Your task to perform on an android device: visit the assistant section in the google photos Image 0: 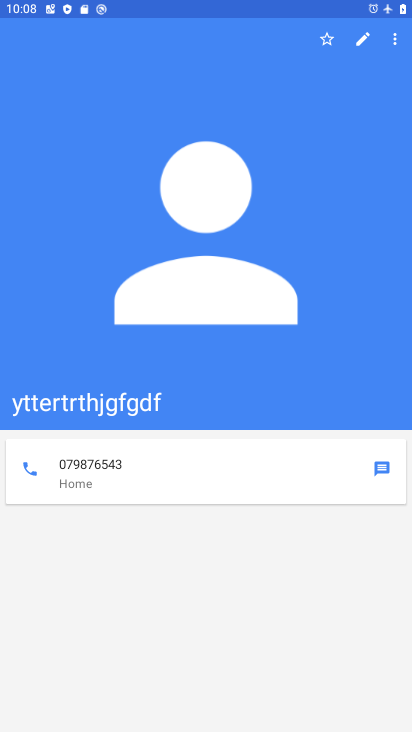
Step 0: press home button
Your task to perform on an android device: visit the assistant section in the google photos Image 1: 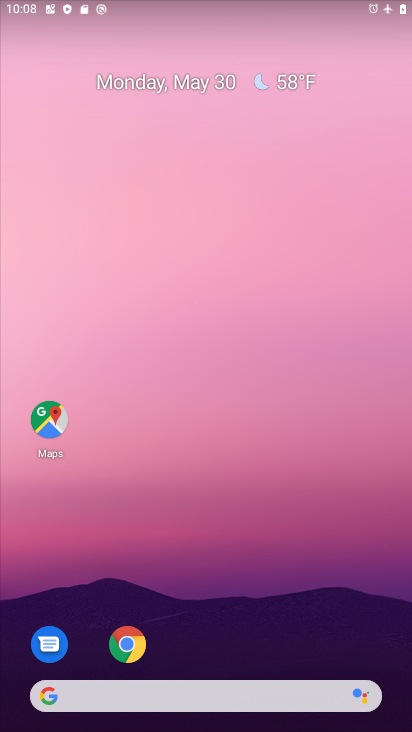
Step 1: drag from (385, 663) to (307, 149)
Your task to perform on an android device: visit the assistant section in the google photos Image 2: 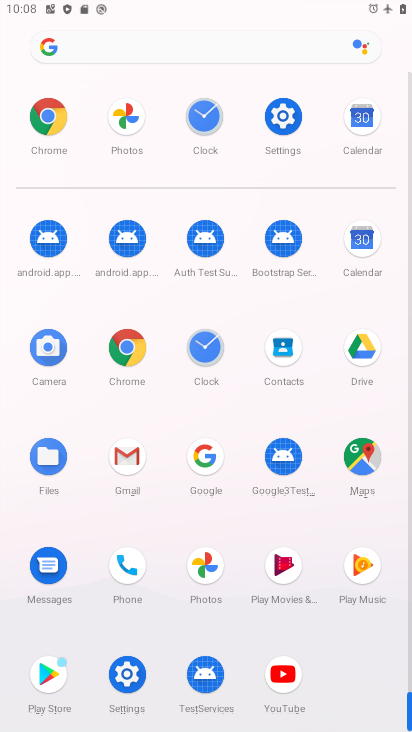
Step 2: click (204, 561)
Your task to perform on an android device: visit the assistant section in the google photos Image 3: 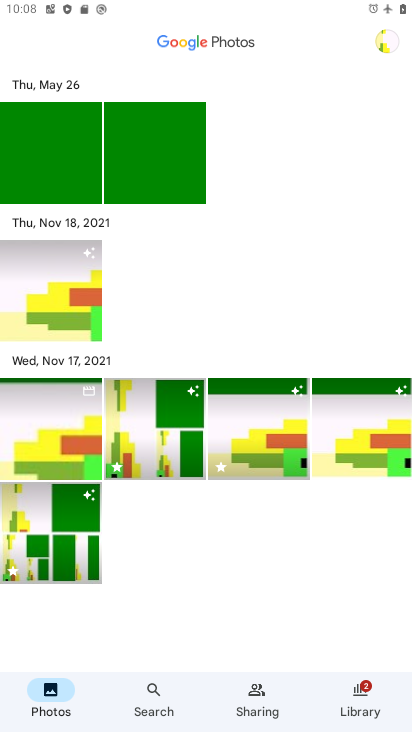
Step 3: click (360, 696)
Your task to perform on an android device: visit the assistant section in the google photos Image 4: 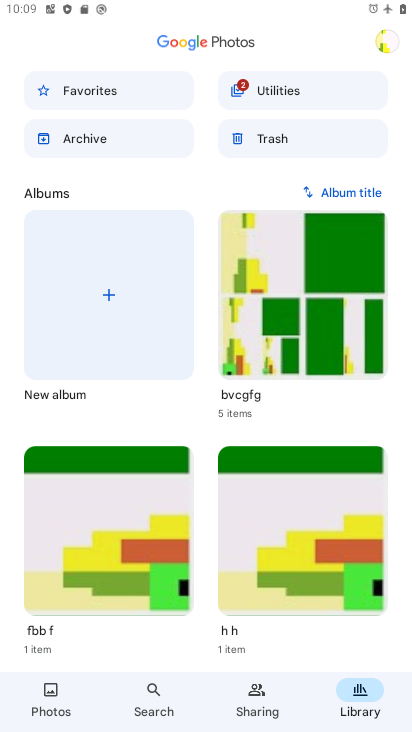
Step 4: task complete